Your task to perform on an android device: Go to privacy settings Image 0: 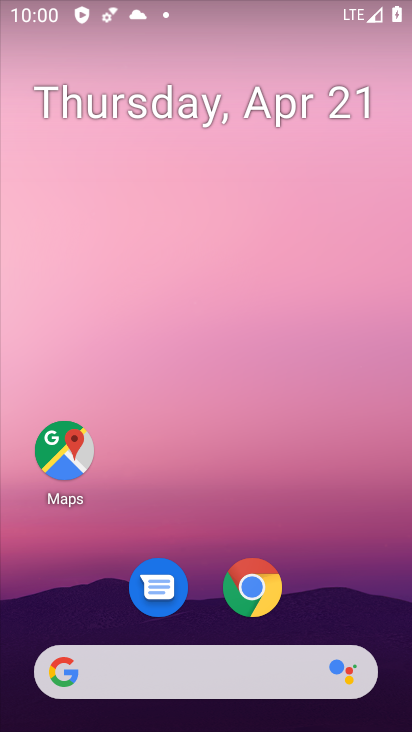
Step 0: drag from (335, 570) to (326, 143)
Your task to perform on an android device: Go to privacy settings Image 1: 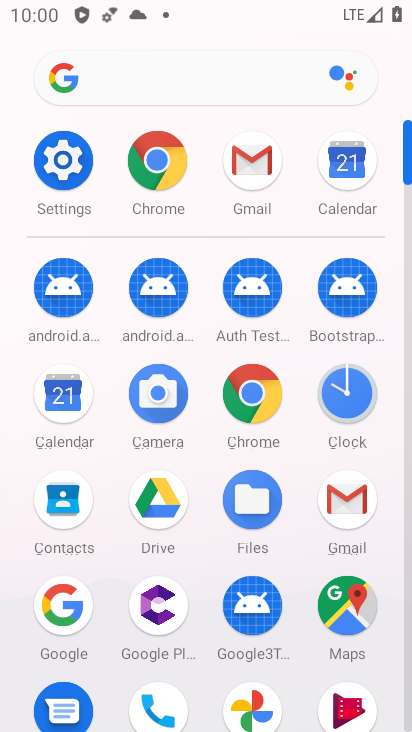
Step 1: click (70, 169)
Your task to perform on an android device: Go to privacy settings Image 2: 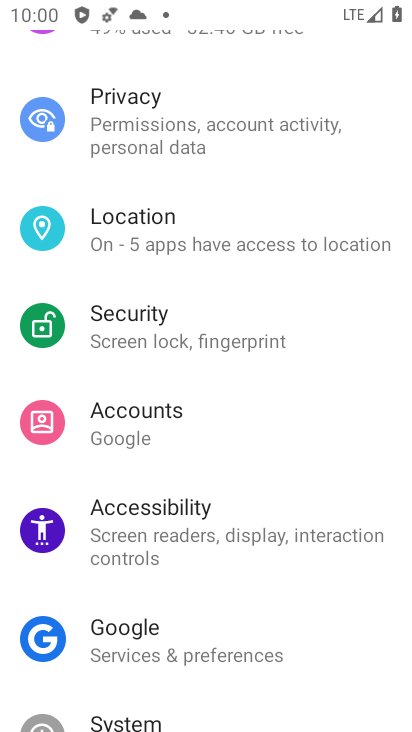
Step 2: drag from (371, 288) to (384, 463)
Your task to perform on an android device: Go to privacy settings Image 3: 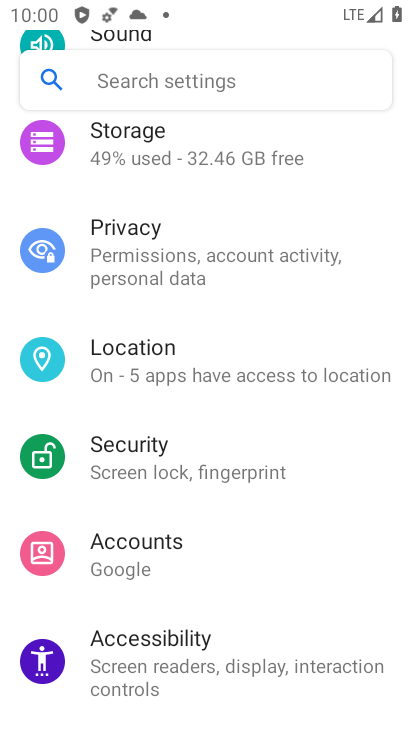
Step 3: drag from (366, 225) to (353, 436)
Your task to perform on an android device: Go to privacy settings Image 4: 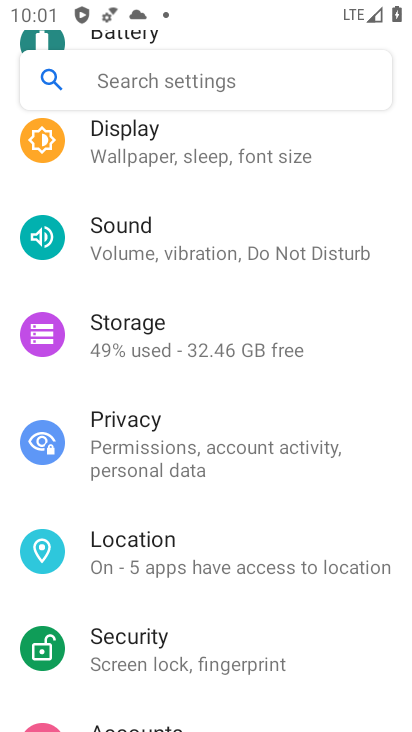
Step 4: drag from (373, 206) to (367, 432)
Your task to perform on an android device: Go to privacy settings Image 5: 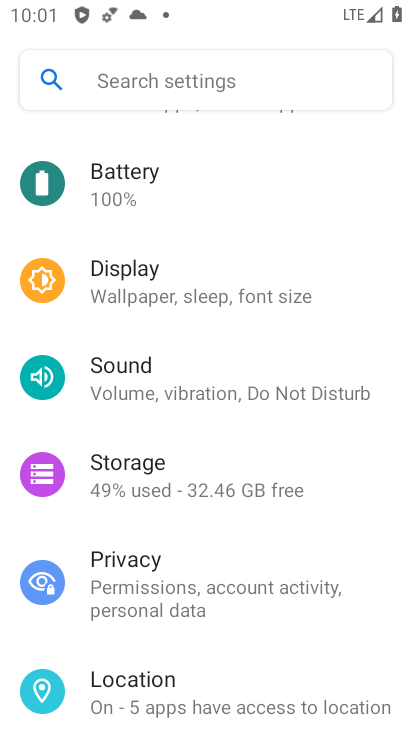
Step 5: drag from (361, 220) to (347, 505)
Your task to perform on an android device: Go to privacy settings Image 6: 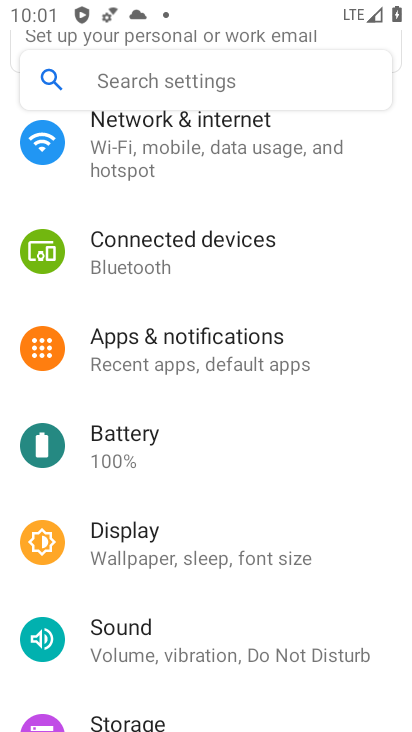
Step 6: drag from (351, 234) to (328, 443)
Your task to perform on an android device: Go to privacy settings Image 7: 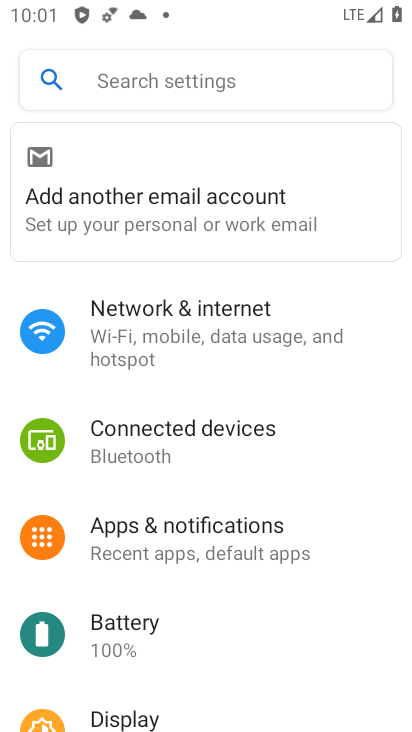
Step 7: drag from (370, 368) to (352, 581)
Your task to perform on an android device: Go to privacy settings Image 8: 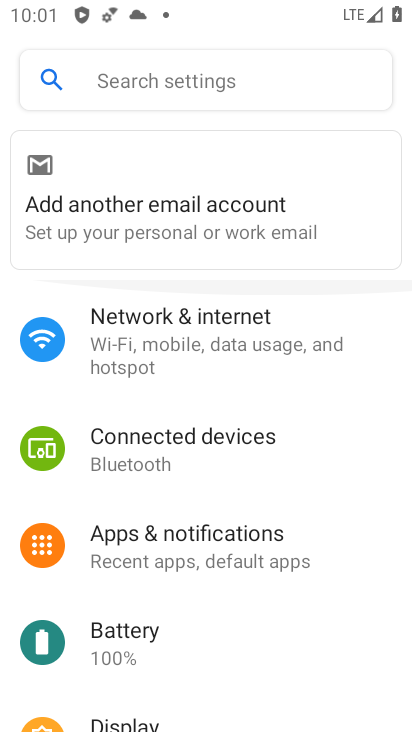
Step 8: drag from (335, 613) to (354, 365)
Your task to perform on an android device: Go to privacy settings Image 9: 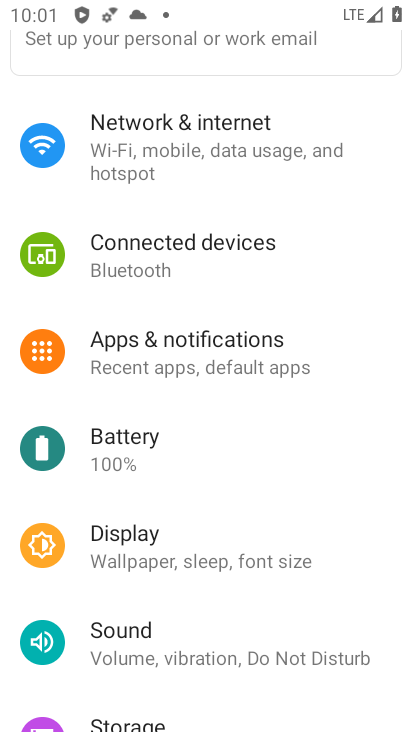
Step 9: drag from (363, 577) to (366, 352)
Your task to perform on an android device: Go to privacy settings Image 10: 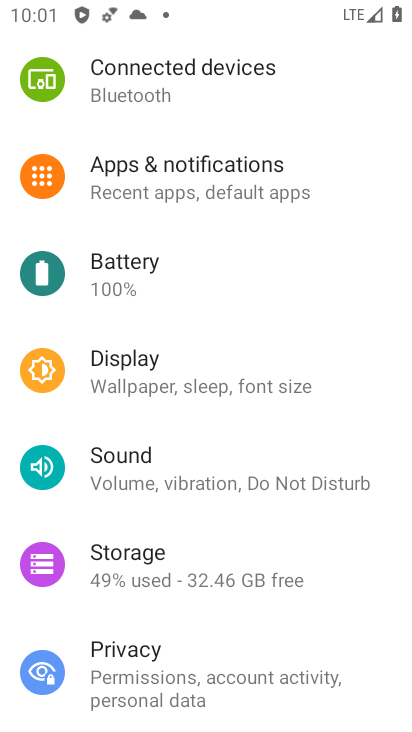
Step 10: drag from (359, 577) to (364, 411)
Your task to perform on an android device: Go to privacy settings Image 11: 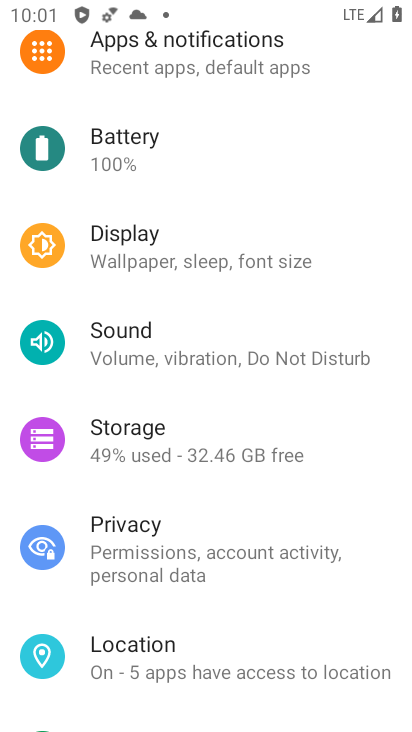
Step 11: click (199, 535)
Your task to perform on an android device: Go to privacy settings Image 12: 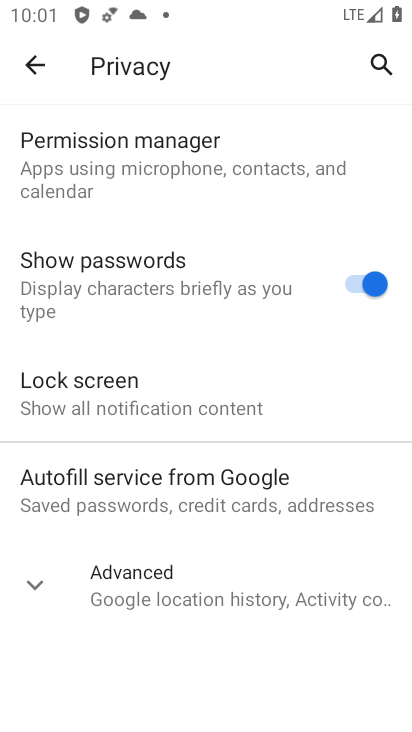
Step 12: task complete